Your task to perform on an android device: toggle sleep mode Image 0: 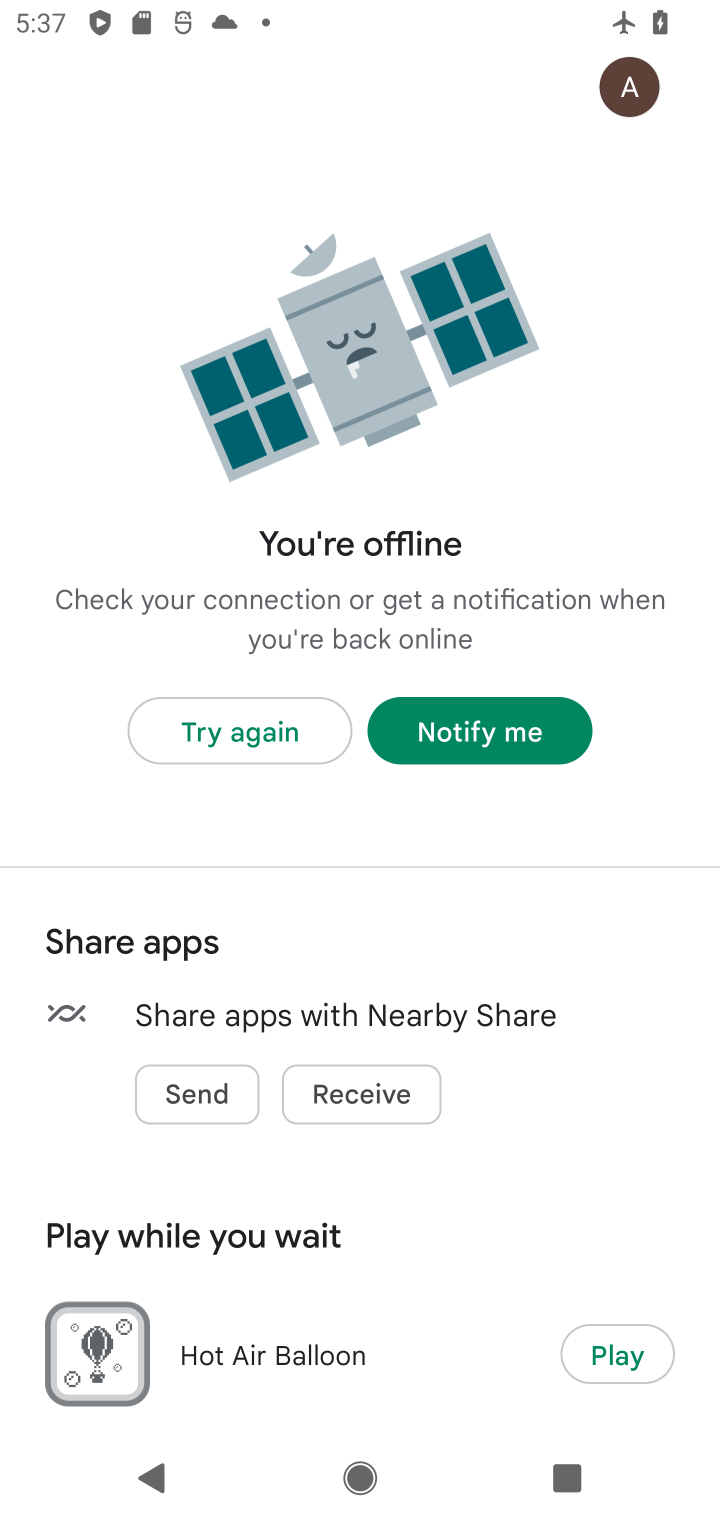
Step 0: press home button
Your task to perform on an android device: toggle sleep mode Image 1: 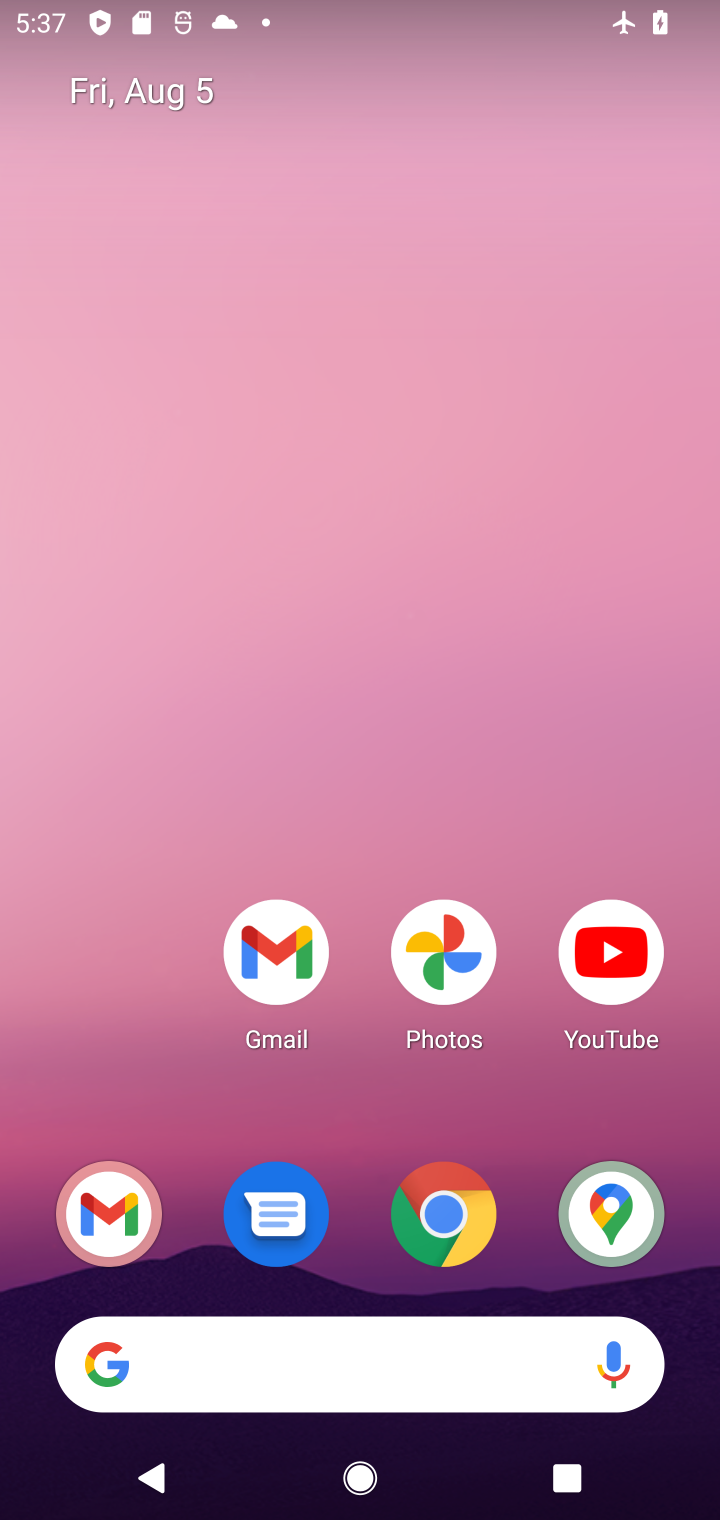
Step 1: drag from (138, 1029) to (262, 0)
Your task to perform on an android device: toggle sleep mode Image 2: 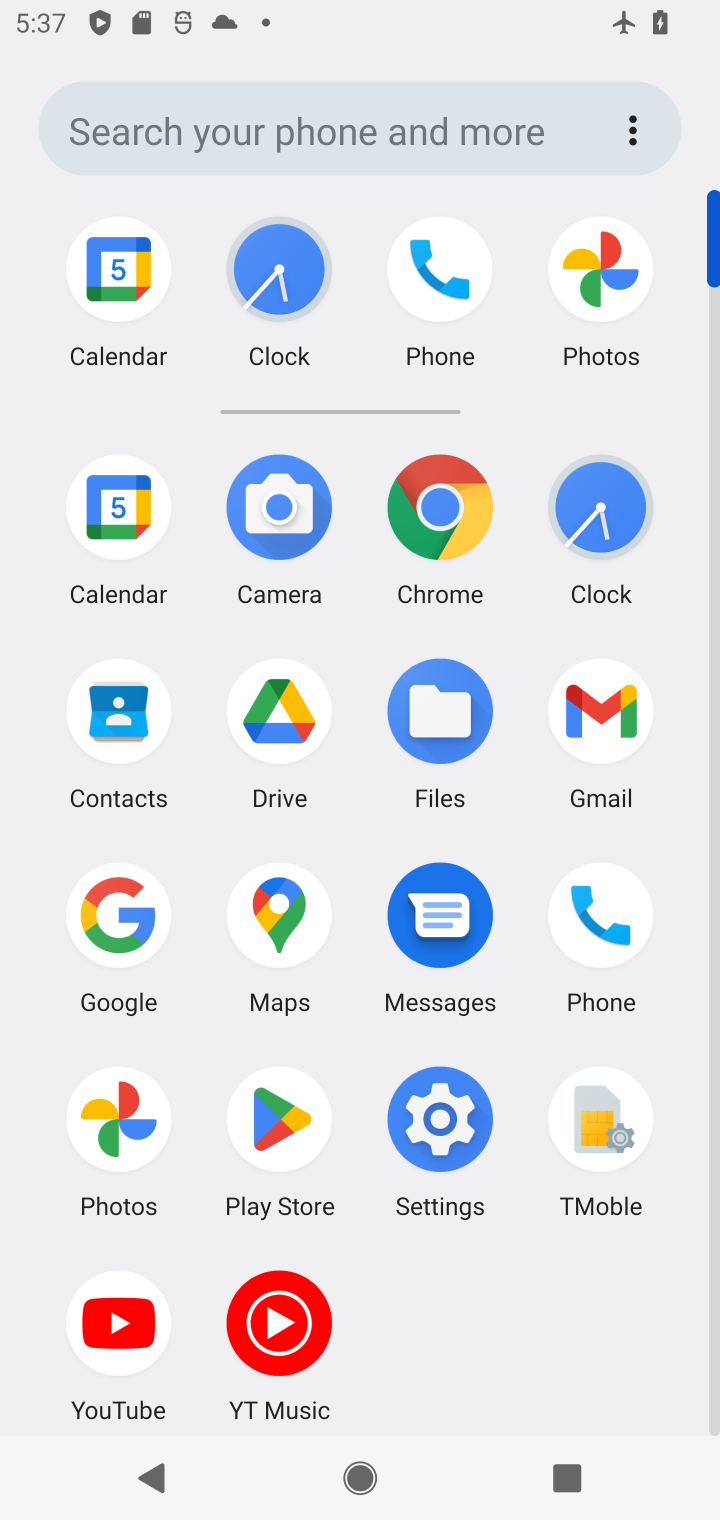
Step 2: click (432, 1126)
Your task to perform on an android device: toggle sleep mode Image 3: 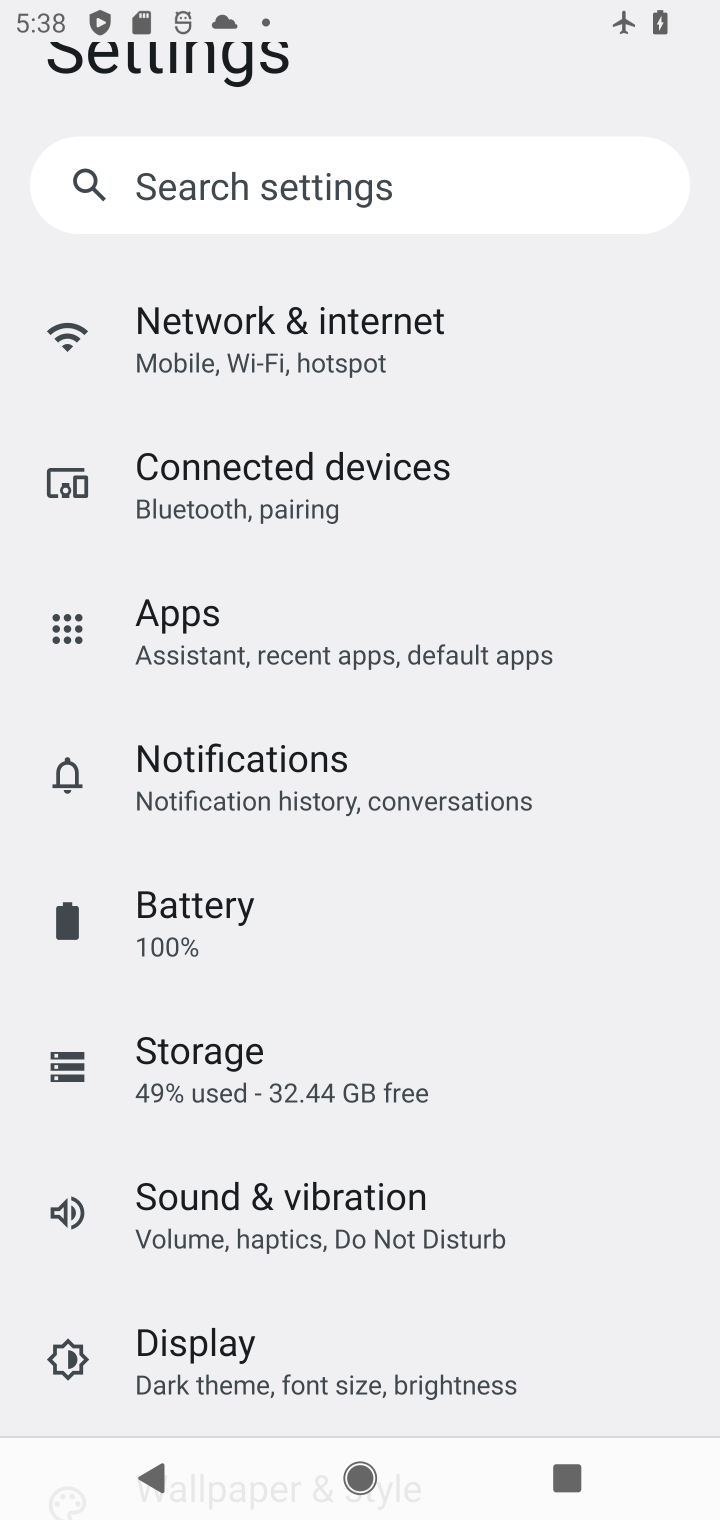
Step 3: drag from (430, 973) to (363, 393)
Your task to perform on an android device: toggle sleep mode Image 4: 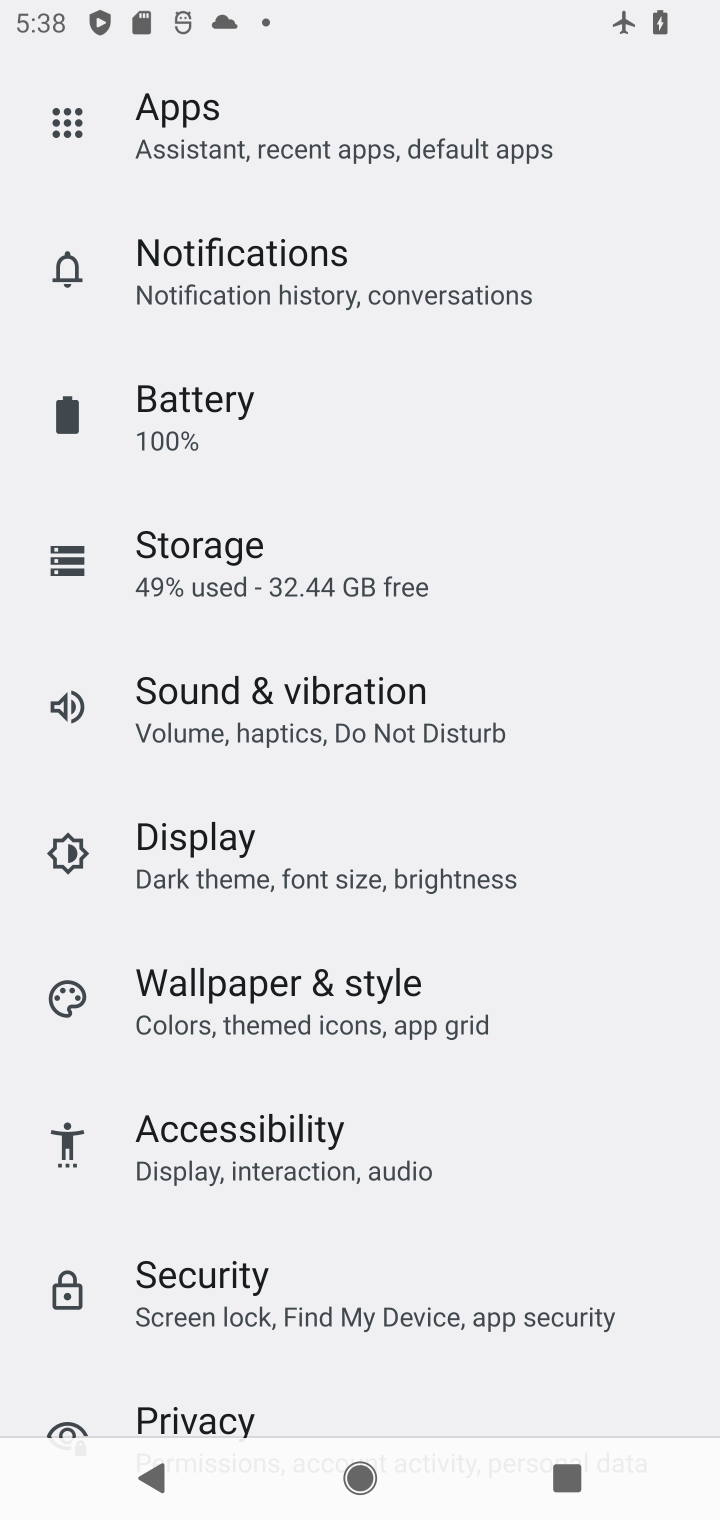
Step 4: click (383, 858)
Your task to perform on an android device: toggle sleep mode Image 5: 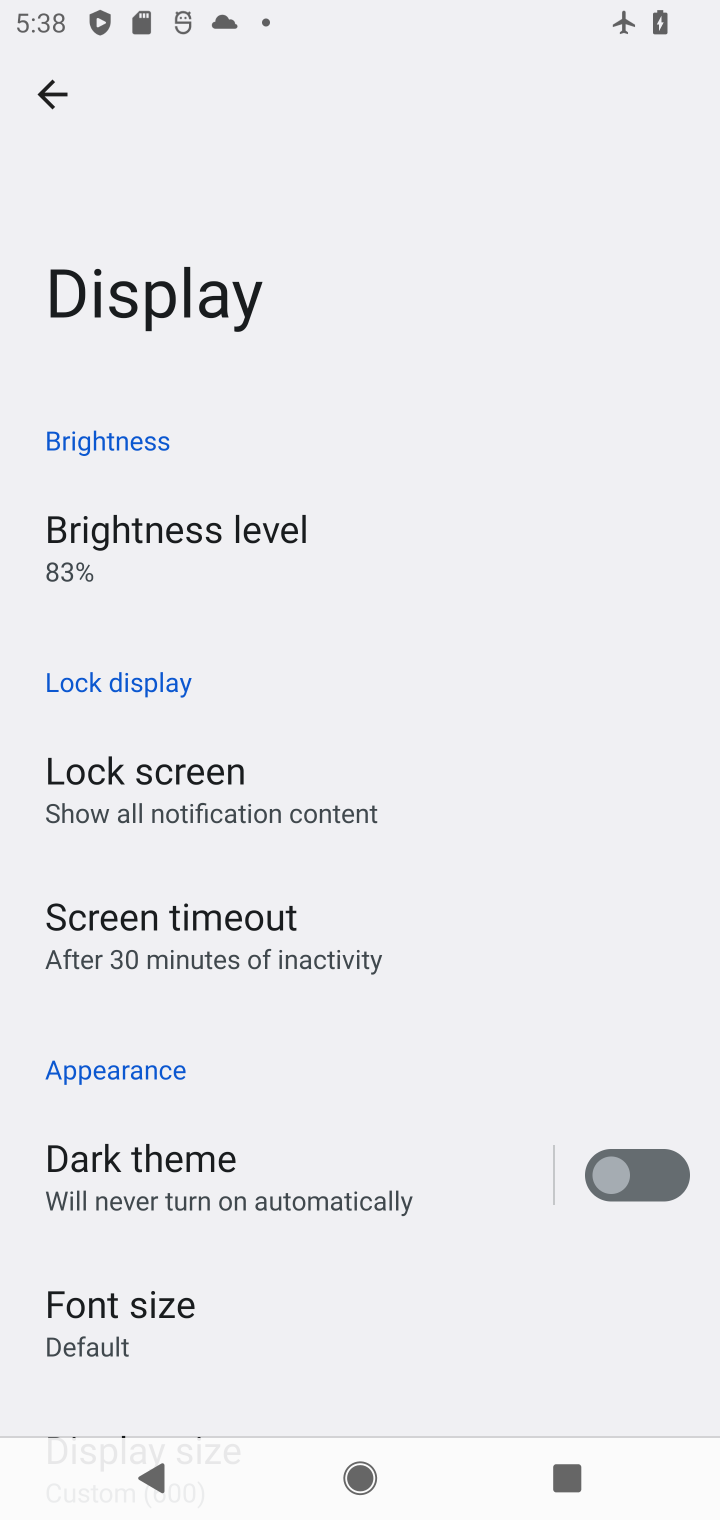
Step 5: task complete